Your task to perform on an android device: remove spam from my inbox in the gmail app Image 0: 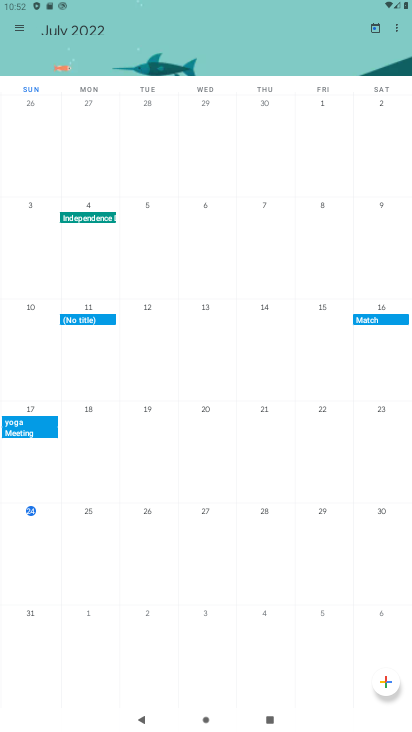
Step 0: press home button
Your task to perform on an android device: remove spam from my inbox in the gmail app Image 1: 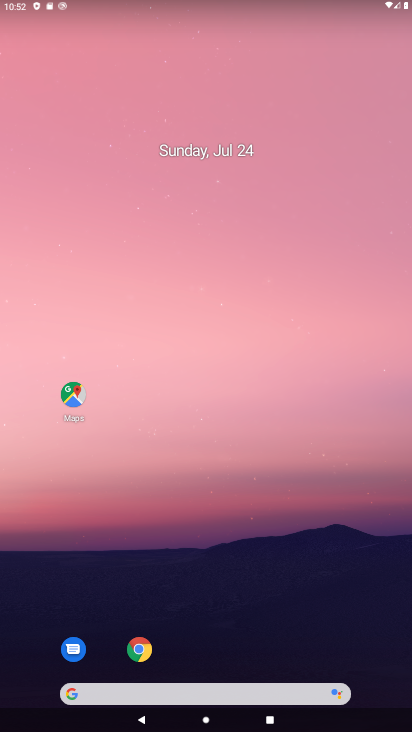
Step 1: drag from (191, 688) to (225, 159)
Your task to perform on an android device: remove spam from my inbox in the gmail app Image 2: 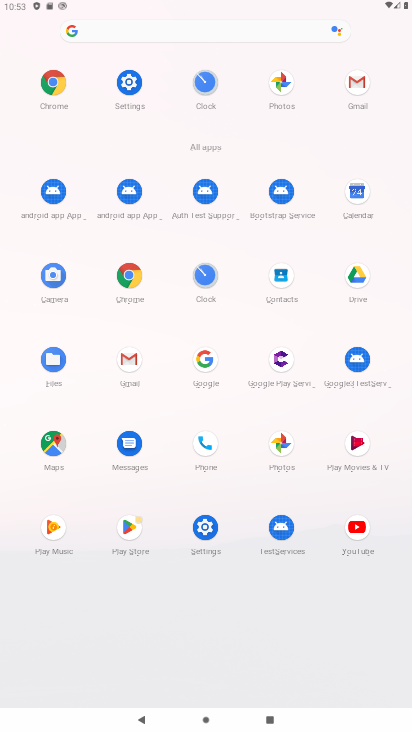
Step 2: click (132, 350)
Your task to perform on an android device: remove spam from my inbox in the gmail app Image 3: 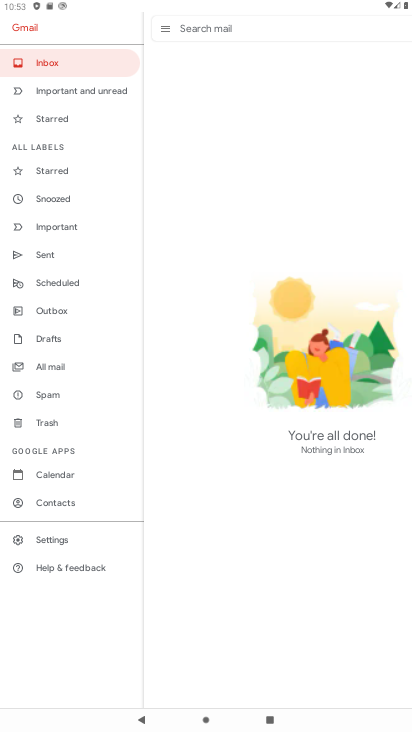
Step 3: click (82, 70)
Your task to perform on an android device: remove spam from my inbox in the gmail app Image 4: 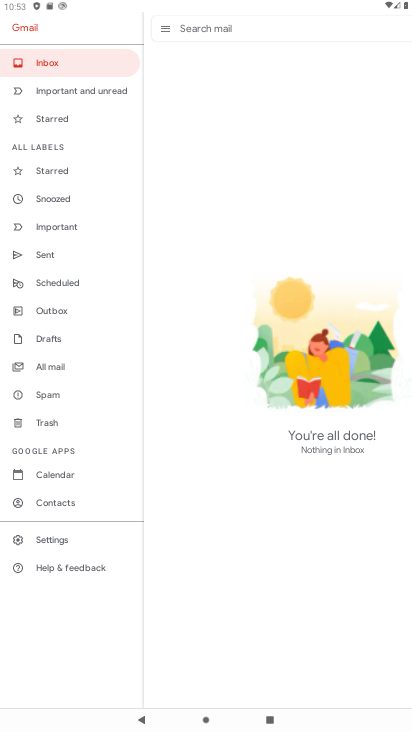
Step 4: task complete